Your task to perform on an android device: turn on wifi Image 0: 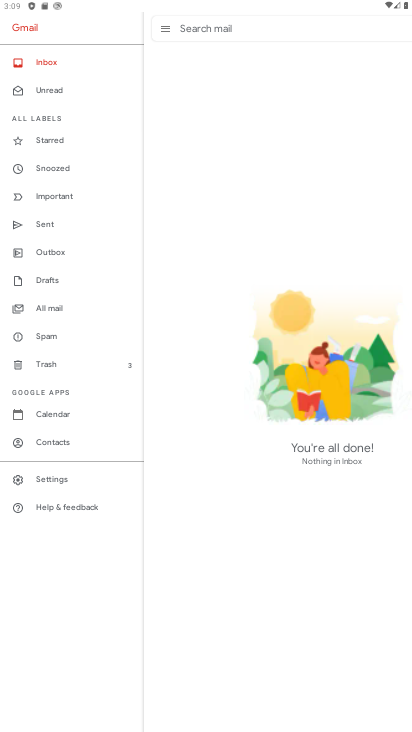
Step 0: press home button
Your task to perform on an android device: turn on wifi Image 1: 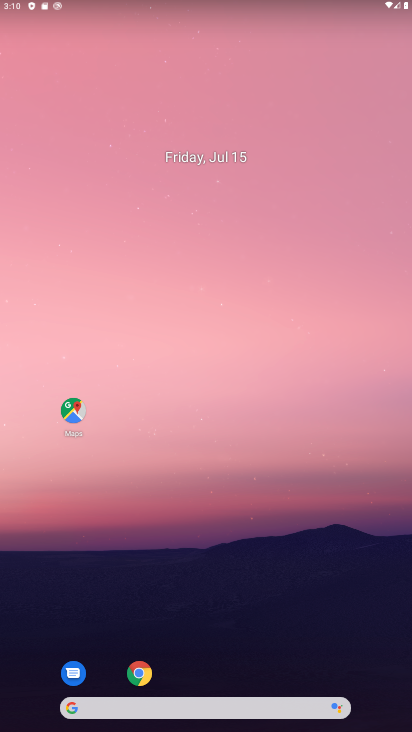
Step 1: drag from (200, 693) to (237, 112)
Your task to perform on an android device: turn on wifi Image 2: 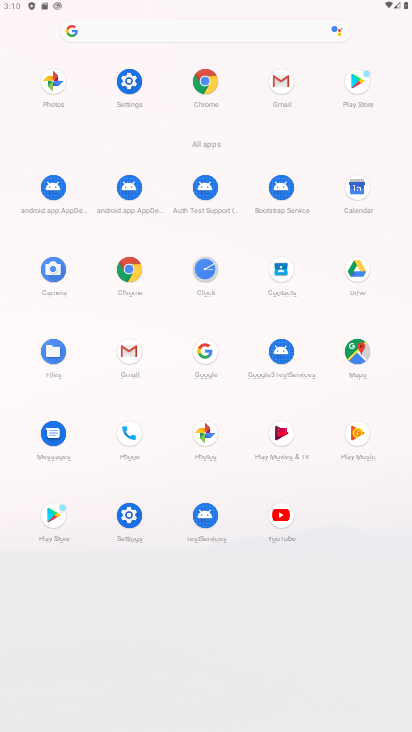
Step 2: click (129, 522)
Your task to perform on an android device: turn on wifi Image 3: 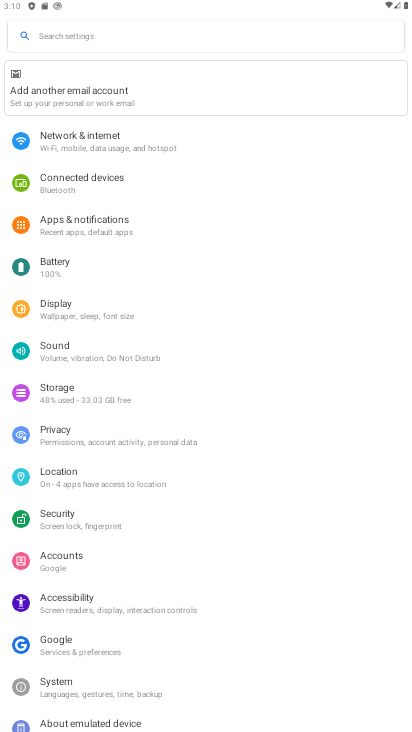
Step 3: click (121, 151)
Your task to perform on an android device: turn on wifi Image 4: 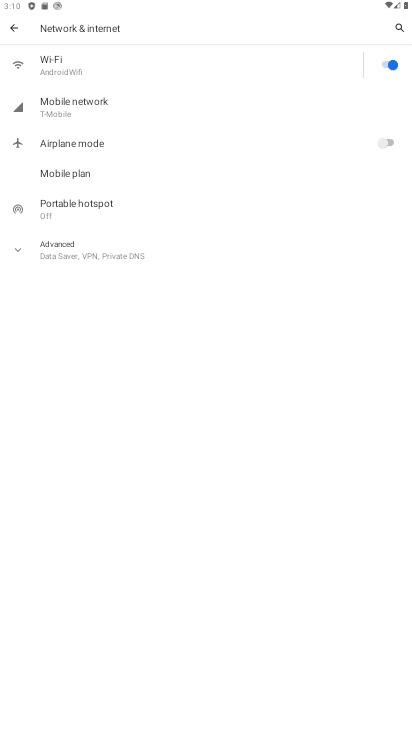
Step 4: click (143, 69)
Your task to perform on an android device: turn on wifi Image 5: 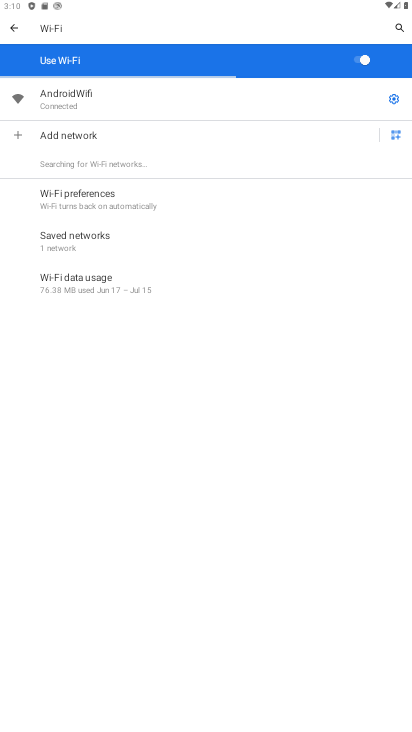
Step 5: task complete